Your task to perform on an android device: refresh tabs in the chrome app Image 0: 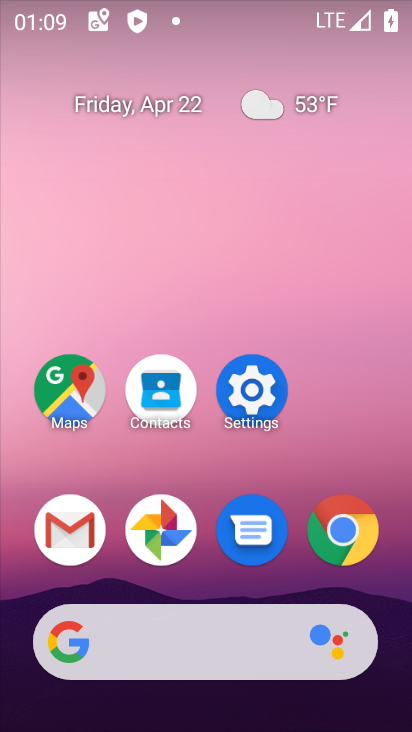
Step 0: click (342, 532)
Your task to perform on an android device: refresh tabs in the chrome app Image 1: 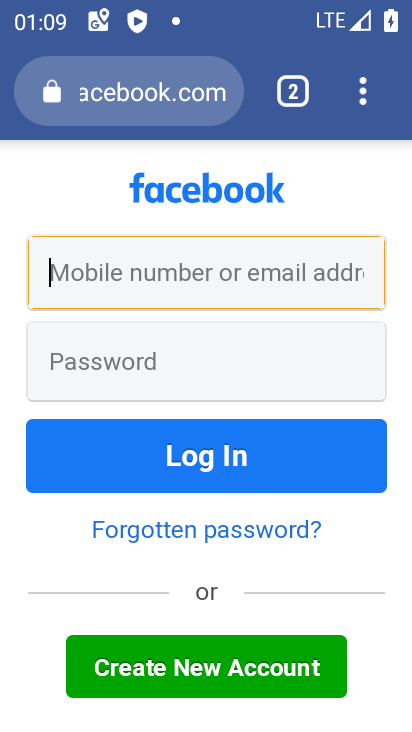
Step 1: click (362, 87)
Your task to perform on an android device: refresh tabs in the chrome app Image 2: 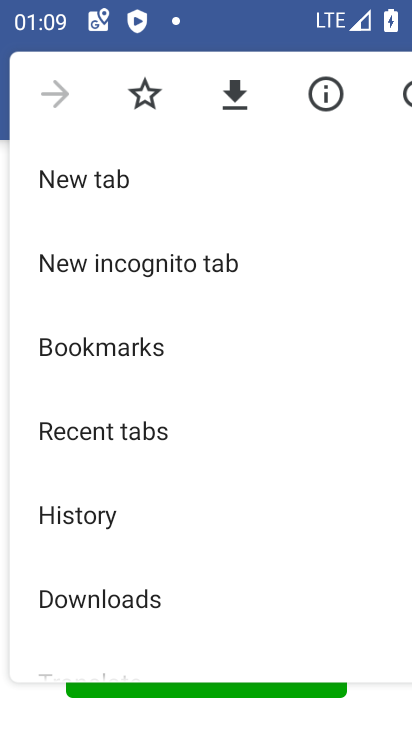
Step 2: click (400, 92)
Your task to perform on an android device: refresh tabs in the chrome app Image 3: 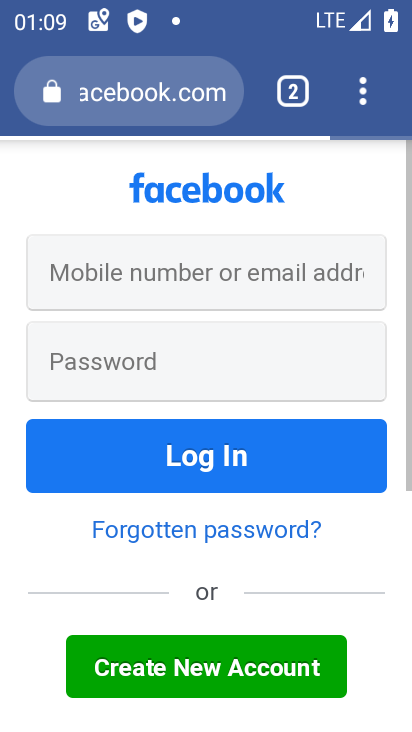
Step 3: click (411, 92)
Your task to perform on an android device: refresh tabs in the chrome app Image 4: 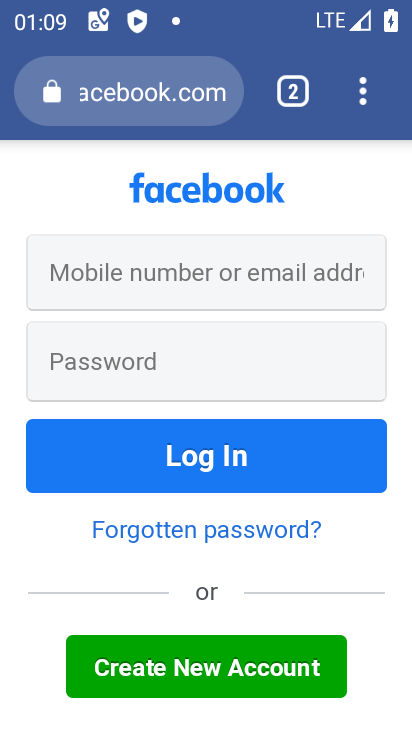
Step 4: task complete